Your task to perform on an android device: find snoozed emails in the gmail app Image 0: 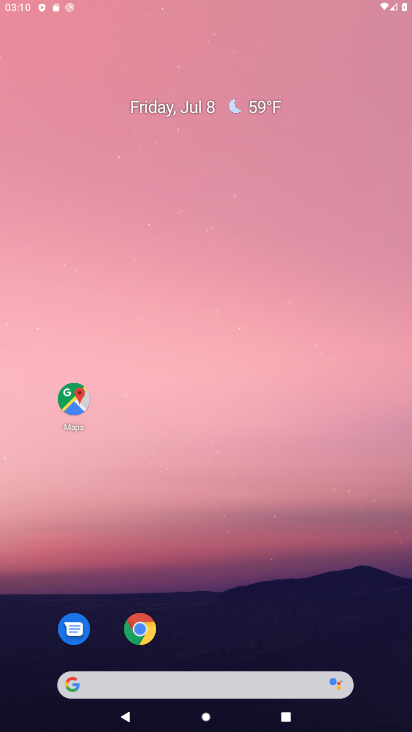
Step 0: press home button
Your task to perform on an android device: find snoozed emails in the gmail app Image 1: 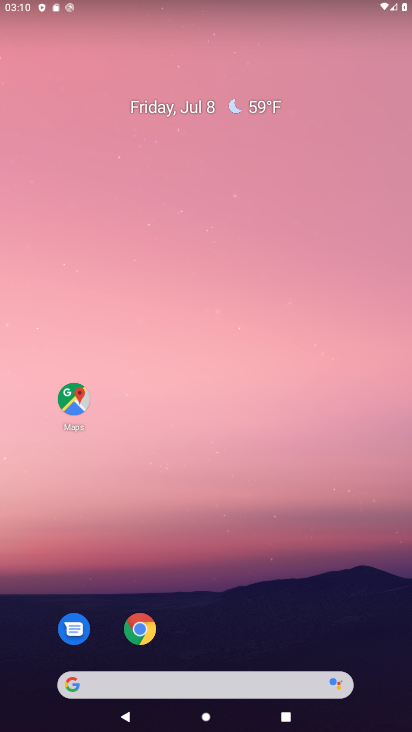
Step 1: drag from (211, 661) to (253, 30)
Your task to perform on an android device: find snoozed emails in the gmail app Image 2: 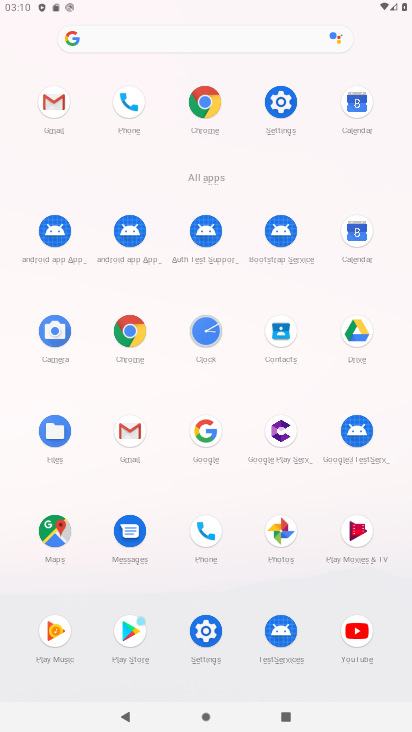
Step 2: click (49, 96)
Your task to perform on an android device: find snoozed emails in the gmail app Image 3: 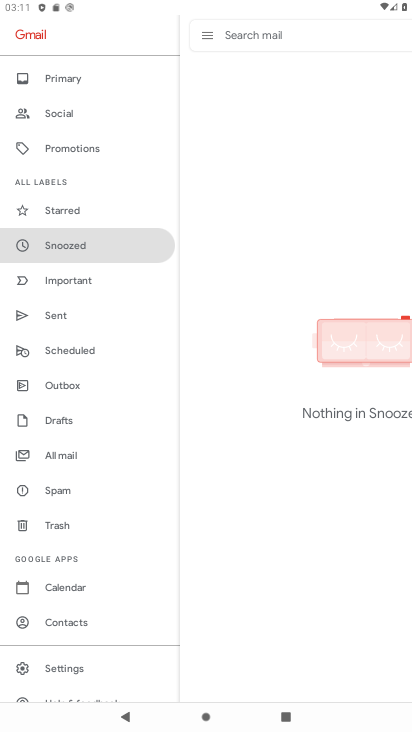
Step 3: click (78, 248)
Your task to perform on an android device: find snoozed emails in the gmail app Image 4: 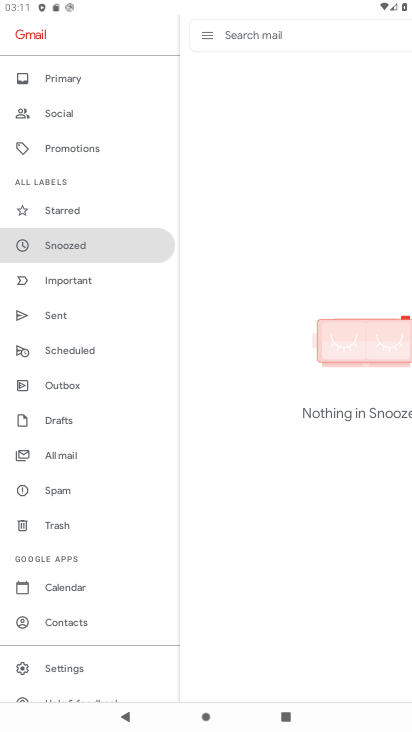
Step 4: task complete